Your task to perform on an android device: toggle airplane mode Image 0: 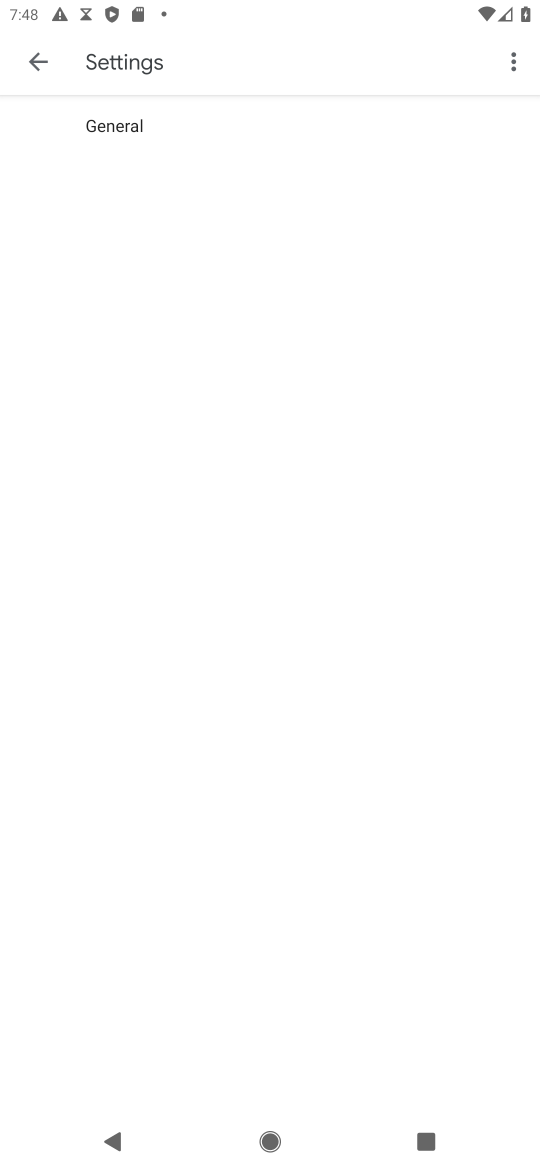
Step 0: press home button
Your task to perform on an android device: toggle airplane mode Image 1: 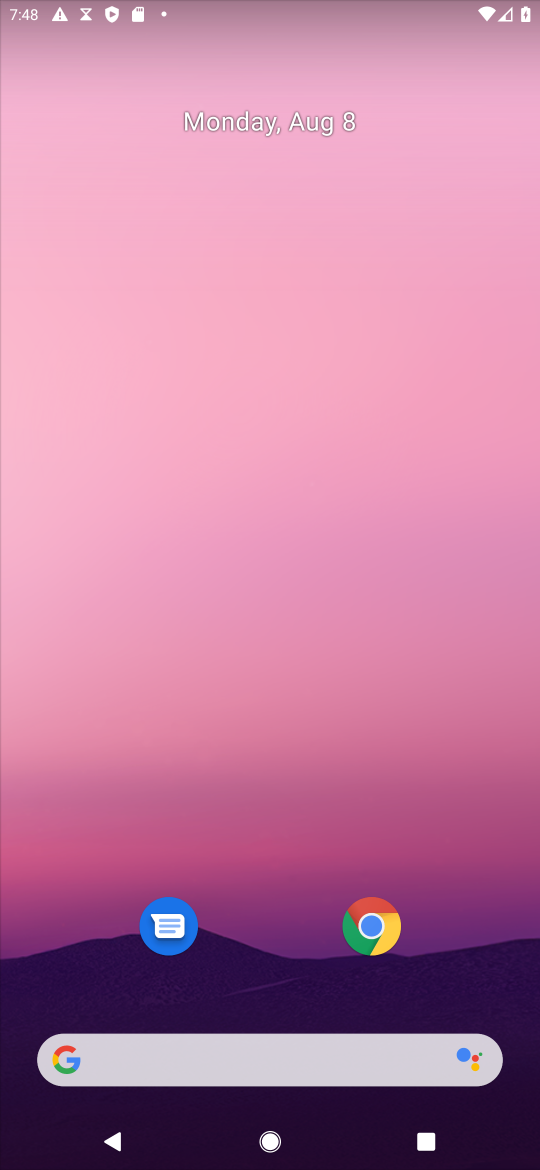
Step 1: drag from (238, 958) to (312, 56)
Your task to perform on an android device: toggle airplane mode Image 2: 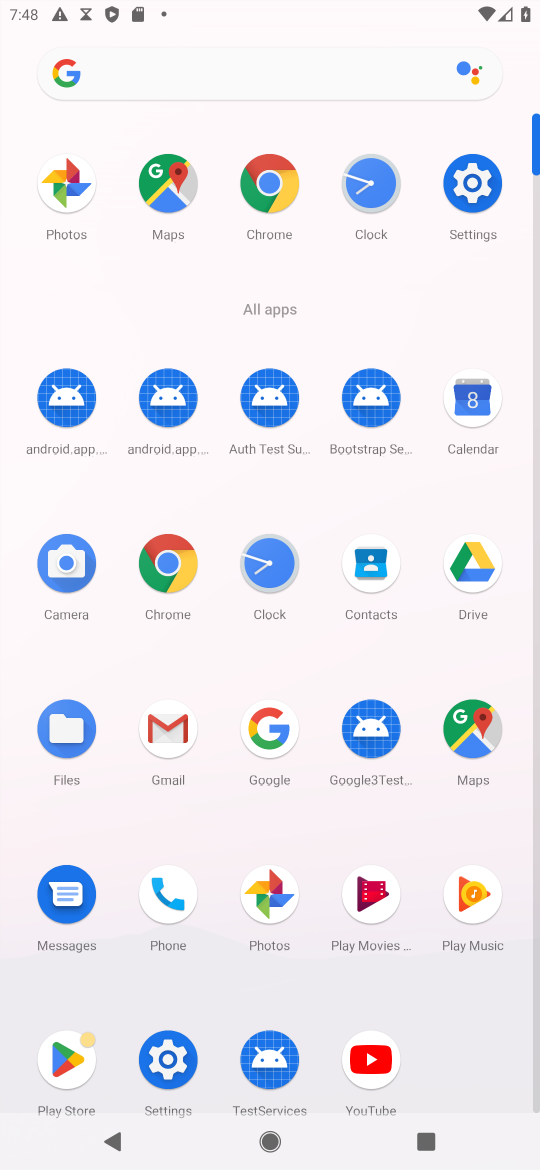
Step 2: click (488, 183)
Your task to perform on an android device: toggle airplane mode Image 3: 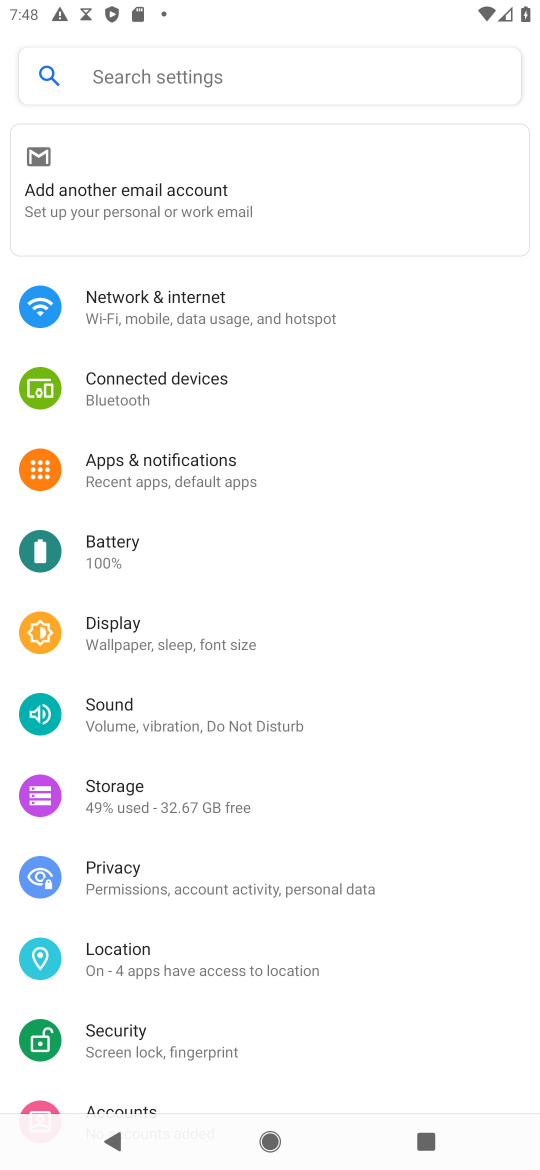
Step 3: click (211, 314)
Your task to perform on an android device: toggle airplane mode Image 4: 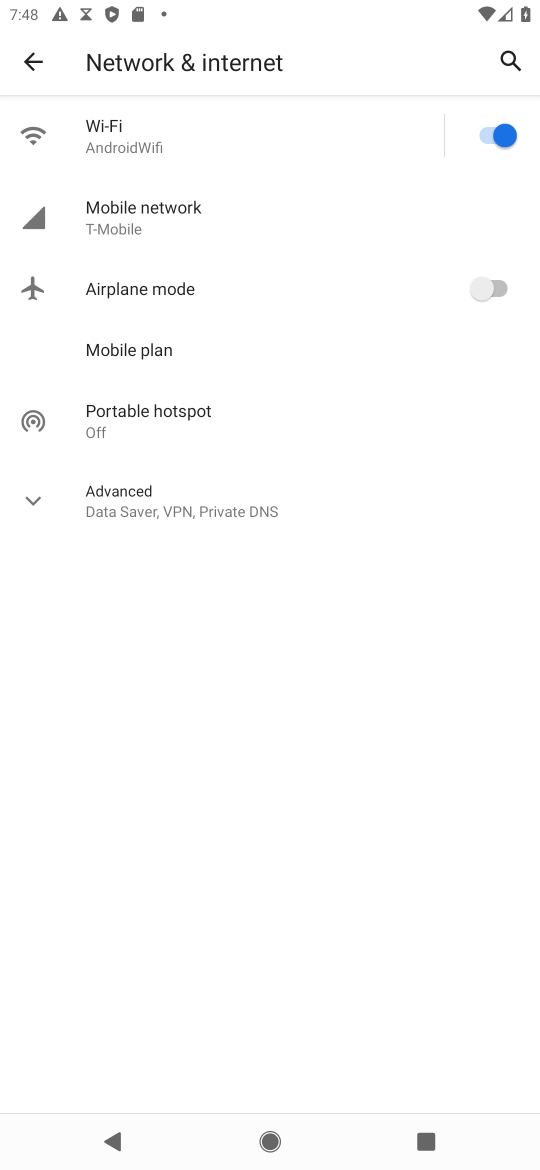
Step 4: click (501, 284)
Your task to perform on an android device: toggle airplane mode Image 5: 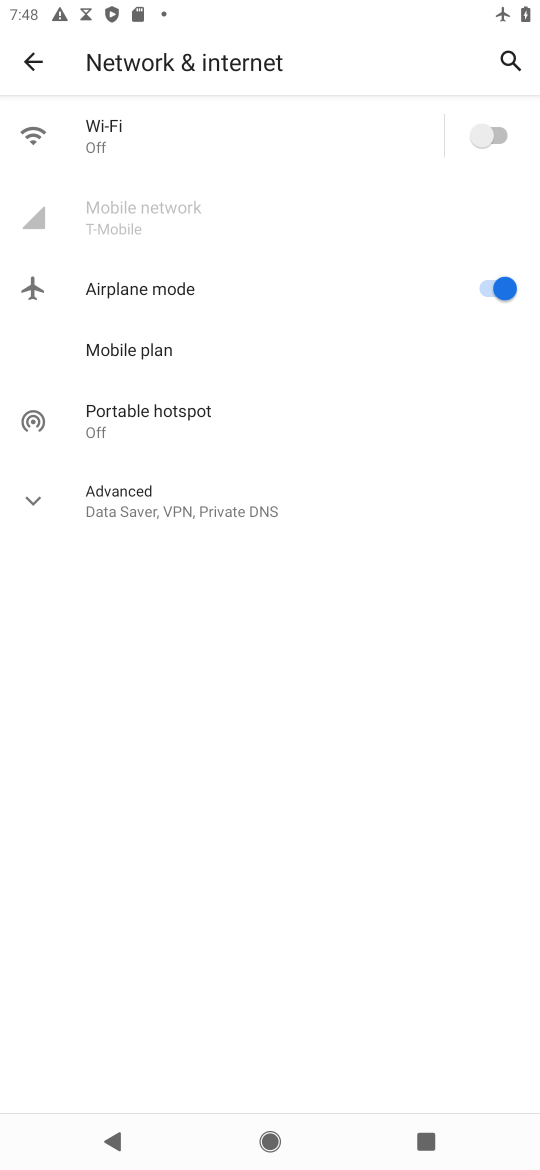
Step 5: task complete